Your task to perform on an android device: find photos in the google photos app Image 0: 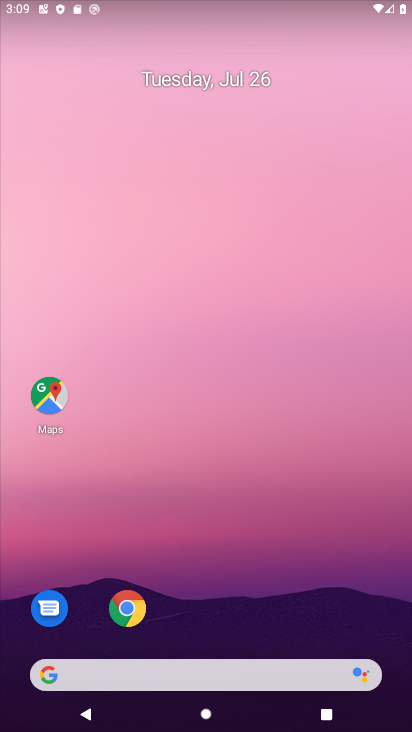
Step 0: drag from (225, 629) to (197, 53)
Your task to perform on an android device: find photos in the google photos app Image 1: 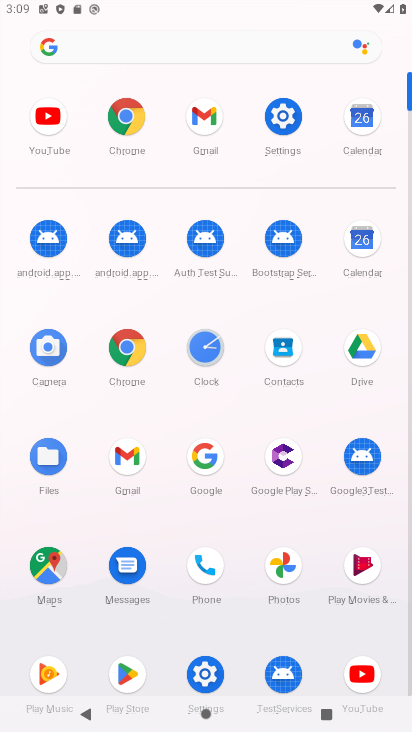
Step 1: click (285, 604)
Your task to perform on an android device: find photos in the google photos app Image 2: 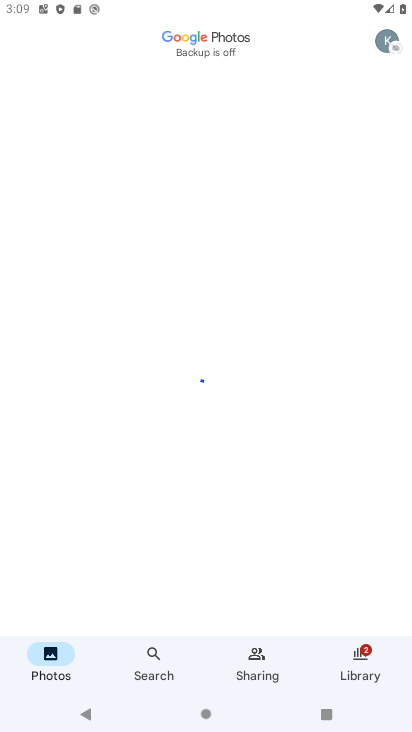
Step 2: task complete